Your task to perform on an android device: Open internet settings Image 0: 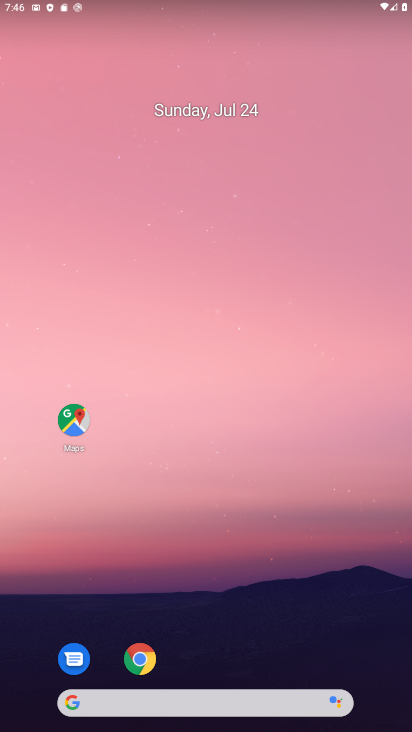
Step 0: drag from (263, 649) to (279, 6)
Your task to perform on an android device: Open internet settings Image 1: 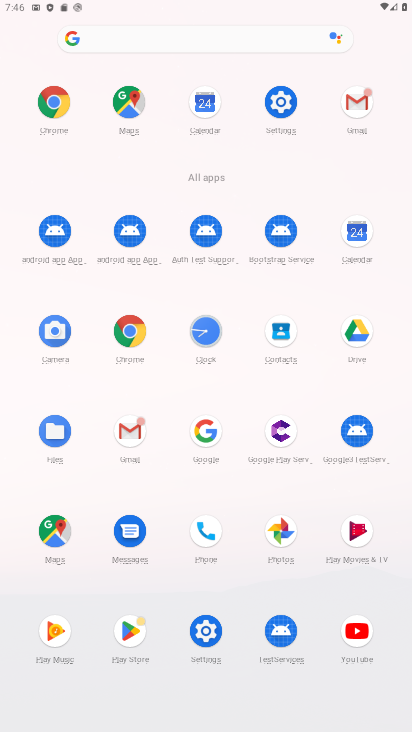
Step 1: click (280, 108)
Your task to perform on an android device: Open internet settings Image 2: 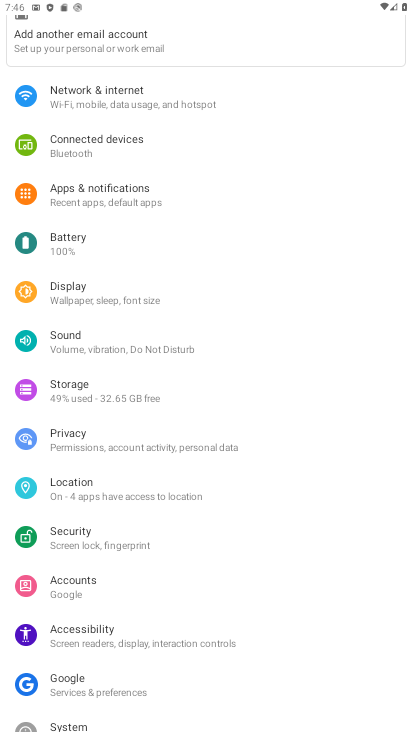
Step 2: click (106, 102)
Your task to perform on an android device: Open internet settings Image 3: 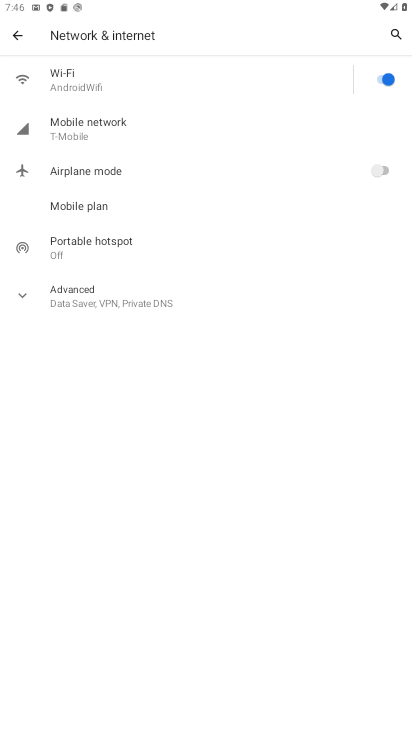
Step 3: click (14, 292)
Your task to perform on an android device: Open internet settings Image 4: 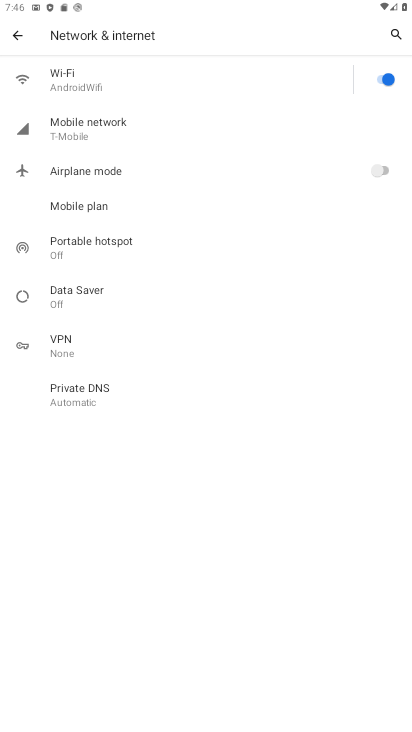
Step 4: task complete